Your task to perform on an android device: Open Android settings Image 0: 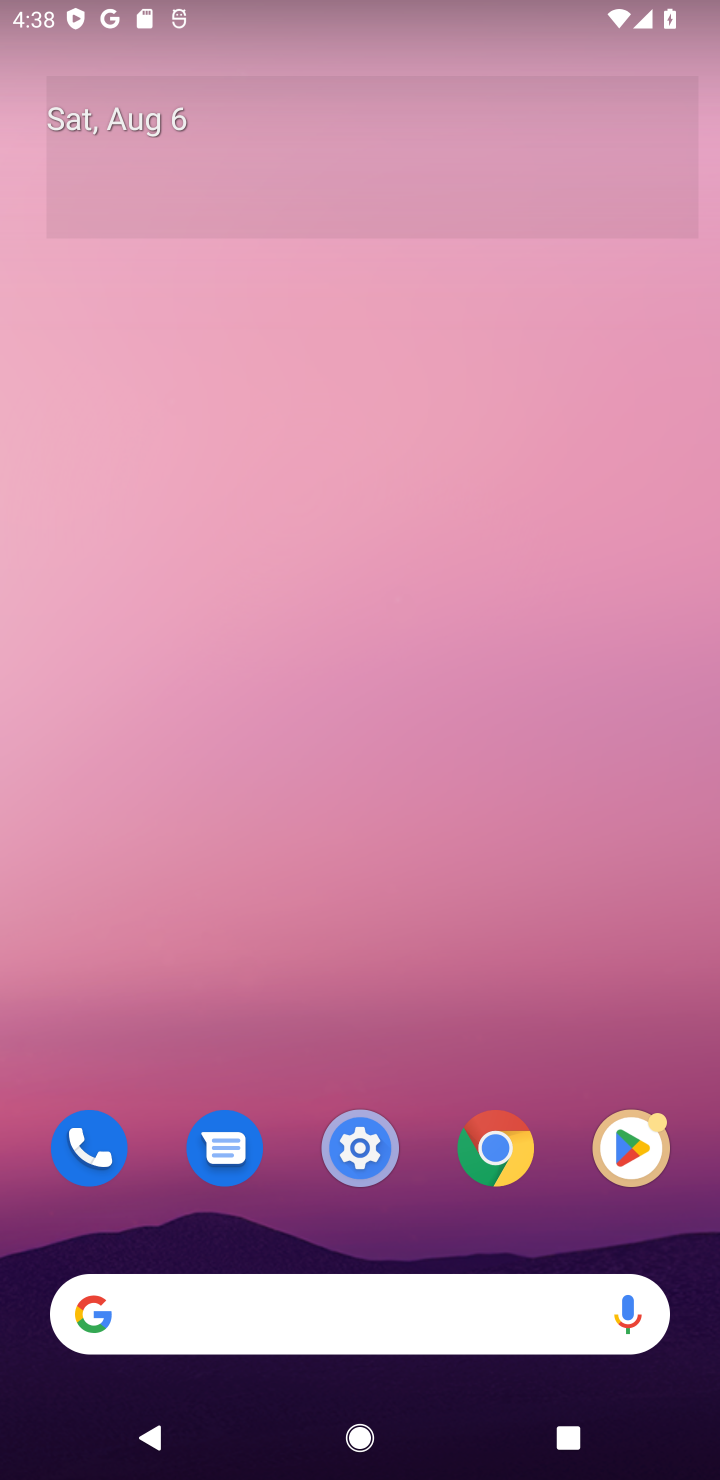
Step 0: click (368, 1163)
Your task to perform on an android device: Open Android settings Image 1: 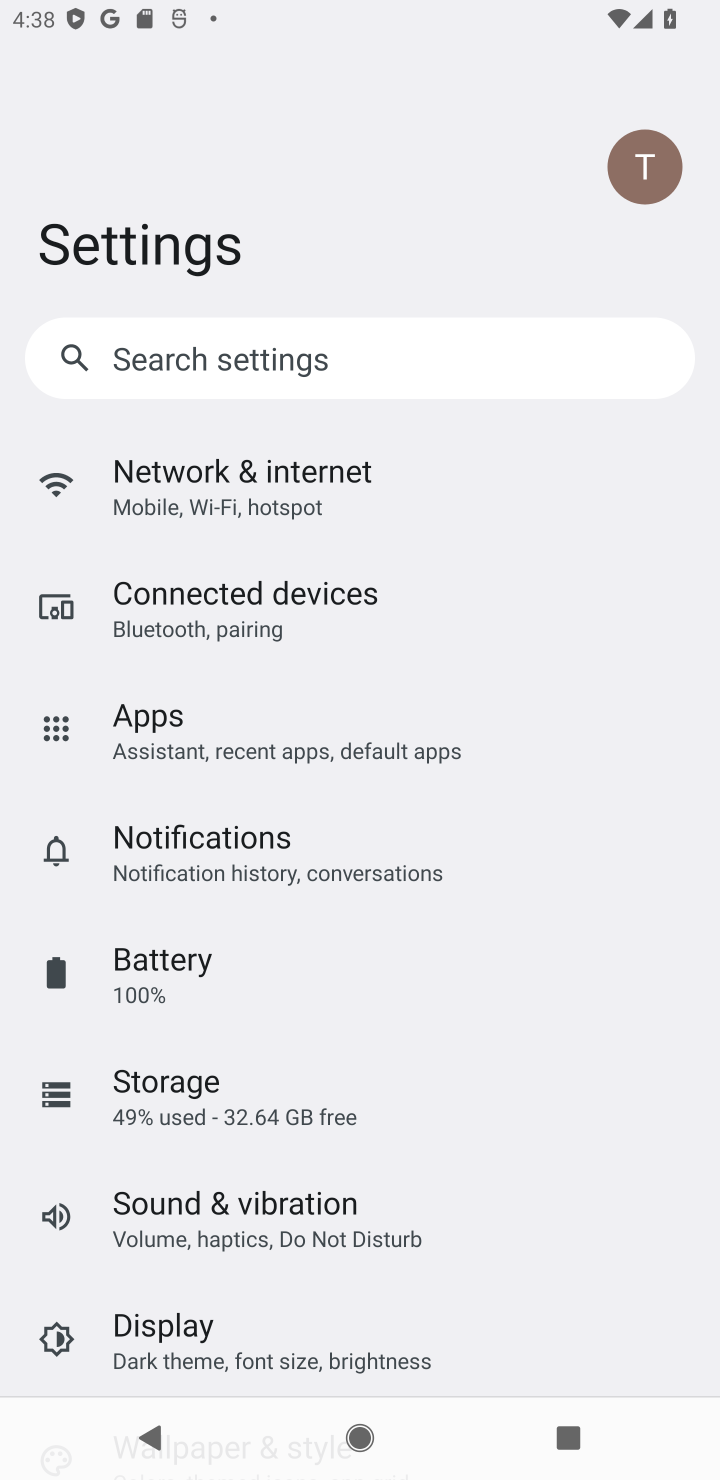
Step 1: task complete